Your task to perform on an android device: turn on showing notifications on the lock screen Image 0: 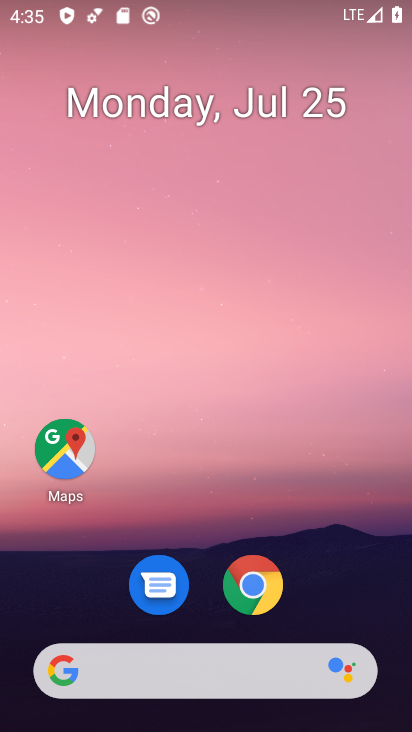
Step 0: drag from (332, 564) to (324, 52)
Your task to perform on an android device: turn on showing notifications on the lock screen Image 1: 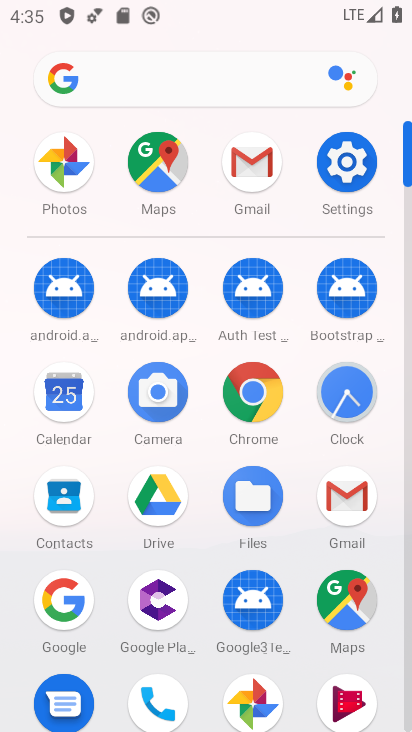
Step 1: click (340, 159)
Your task to perform on an android device: turn on showing notifications on the lock screen Image 2: 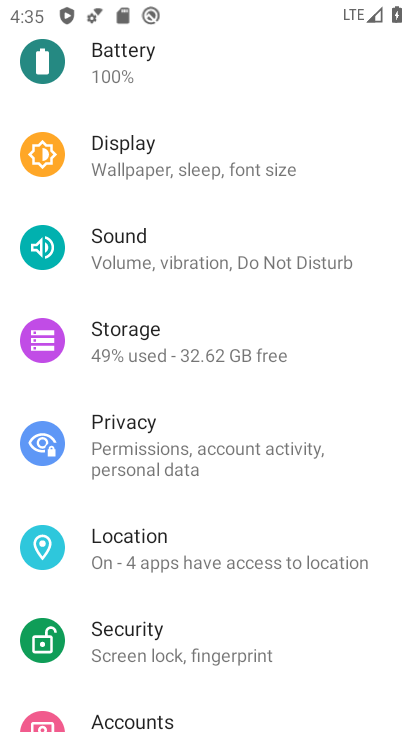
Step 2: drag from (226, 220) to (229, 670)
Your task to perform on an android device: turn on showing notifications on the lock screen Image 3: 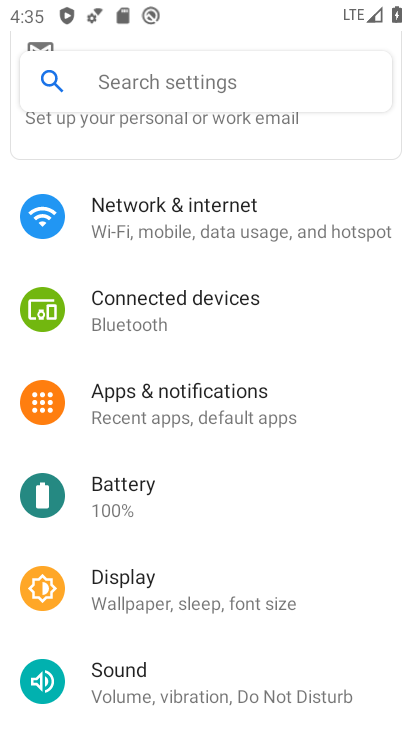
Step 3: click (244, 408)
Your task to perform on an android device: turn on showing notifications on the lock screen Image 4: 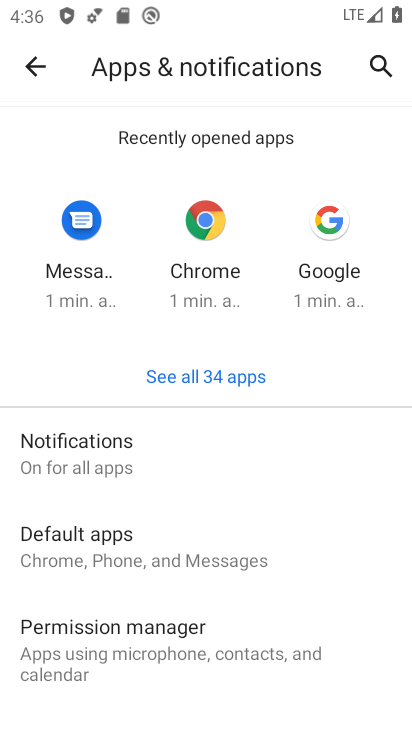
Step 4: drag from (228, 592) to (258, 312)
Your task to perform on an android device: turn on showing notifications on the lock screen Image 5: 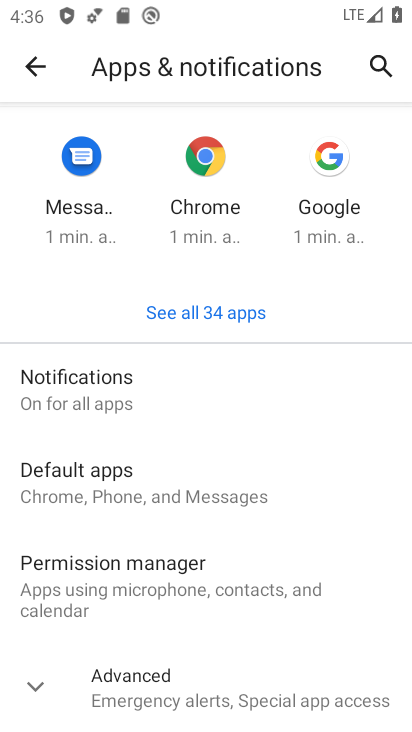
Step 5: click (111, 390)
Your task to perform on an android device: turn on showing notifications on the lock screen Image 6: 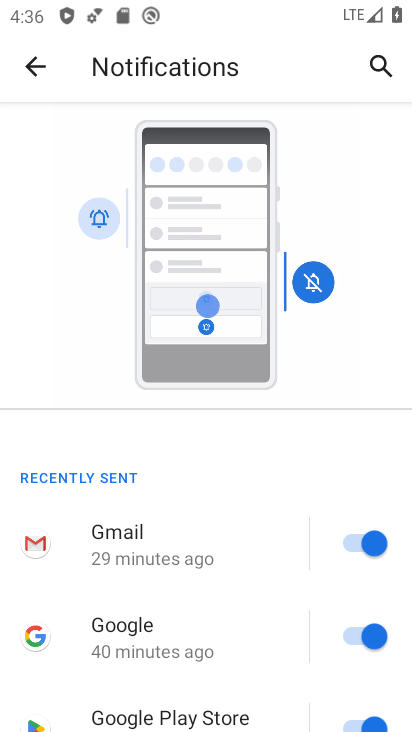
Step 6: drag from (229, 637) to (241, 138)
Your task to perform on an android device: turn on showing notifications on the lock screen Image 7: 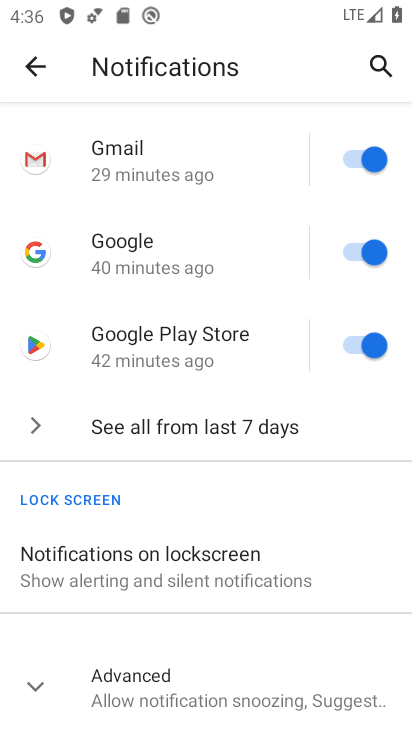
Step 7: click (206, 558)
Your task to perform on an android device: turn on showing notifications on the lock screen Image 8: 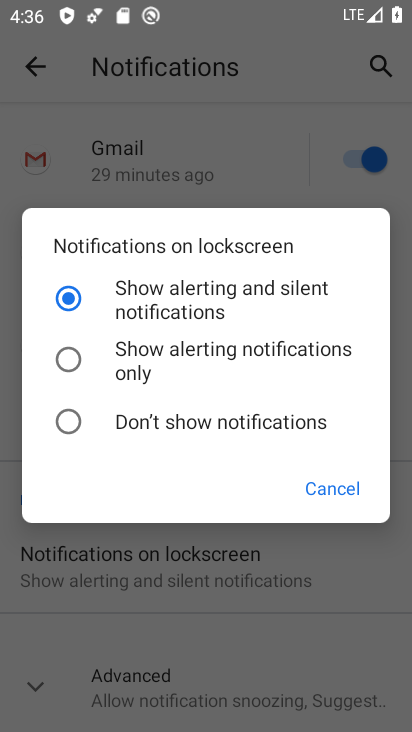
Step 8: click (337, 488)
Your task to perform on an android device: turn on showing notifications on the lock screen Image 9: 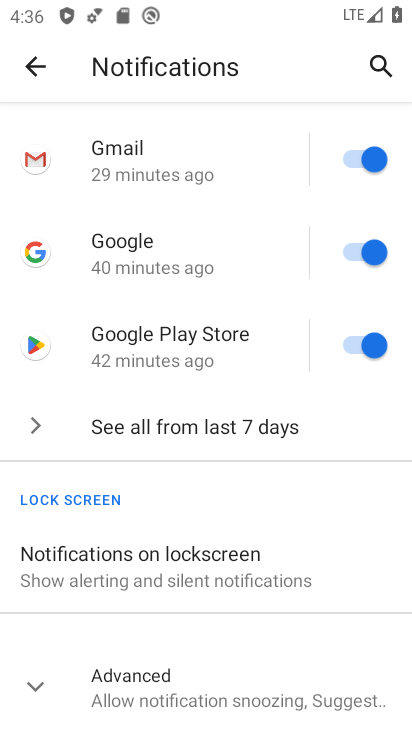
Step 9: task complete